Your task to perform on an android device: Go to Android settings Image 0: 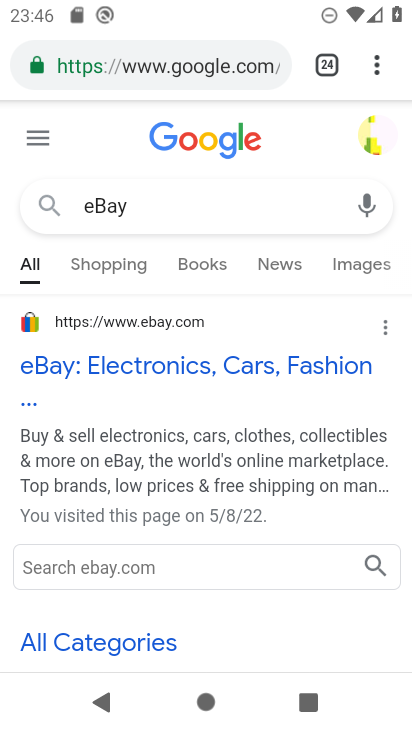
Step 0: press home button
Your task to perform on an android device: Go to Android settings Image 1: 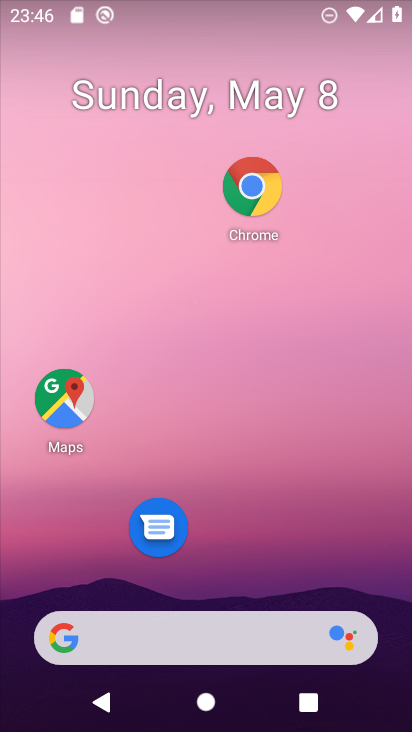
Step 1: drag from (320, 358) to (308, 254)
Your task to perform on an android device: Go to Android settings Image 2: 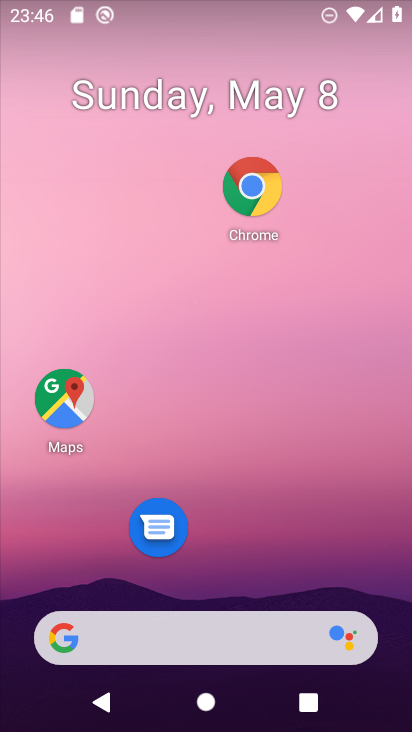
Step 2: drag from (233, 513) to (306, 247)
Your task to perform on an android device: Go to Android settings Image 3: 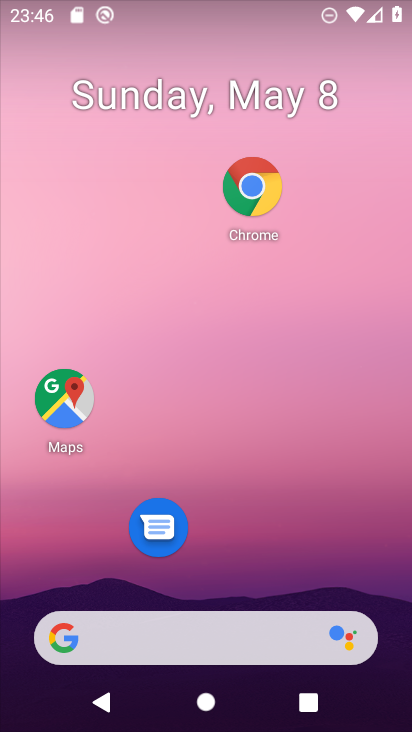
Step 3: drag from (250, 570) to (340, 268)
Your task to perform on an android device: Go to Android settings Image 4: 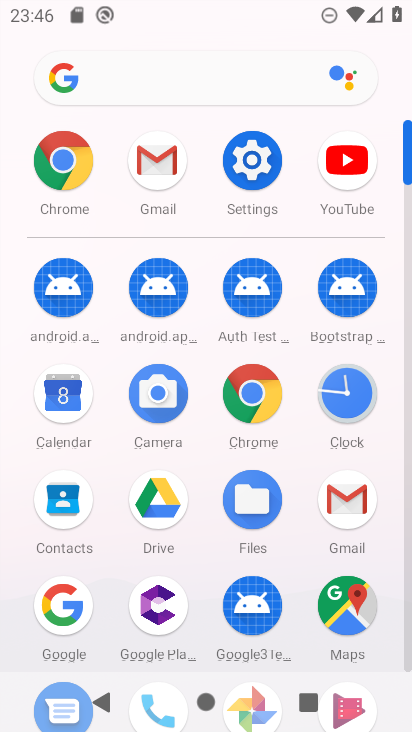
Step 4: click (246, 135)
Your task to perform on an android device: Go to Android settings Image 5: 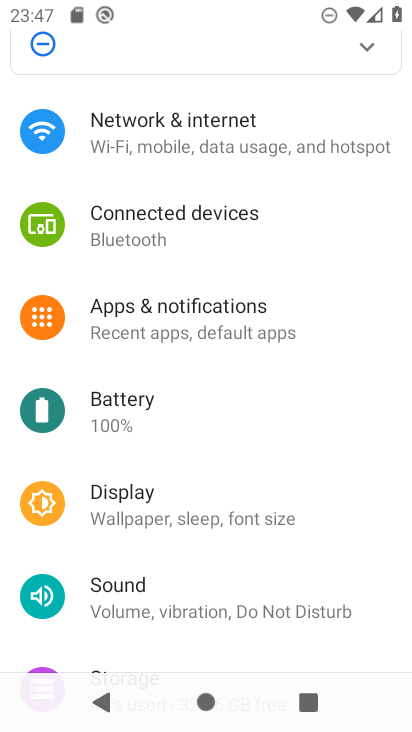
Step 5: task complete